Your task to perform on an android device: open app "Google Sheets" Image 0: 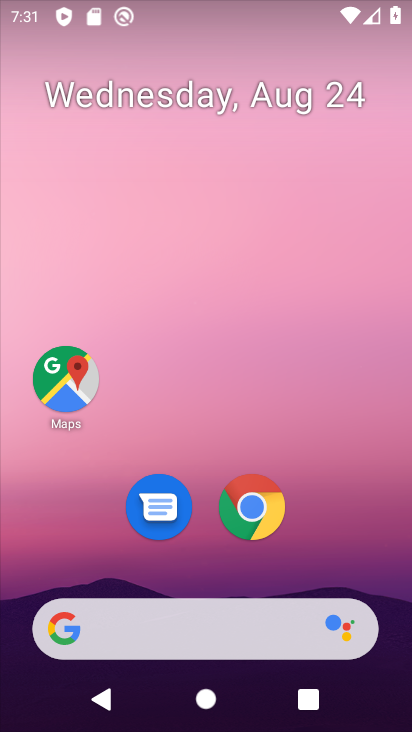
Step 0: drag from (363, 538) to (363, 59)
Your task to perform on an android device: open app "Google Sheets" Image 1: 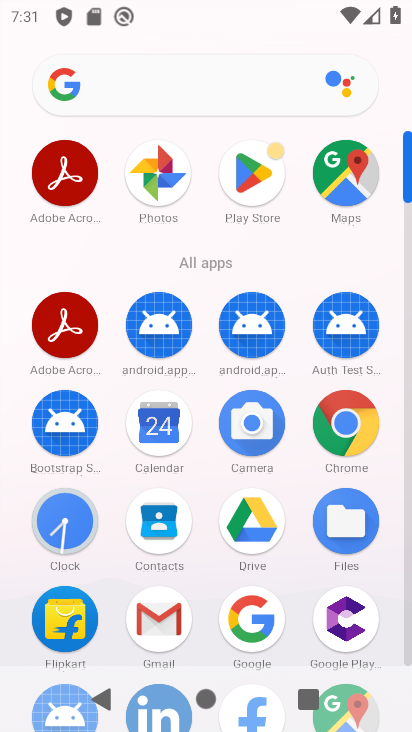
Step 1: click (260, 174)
Your task to perform on an android device: open app "Google Sheets" Image 2: 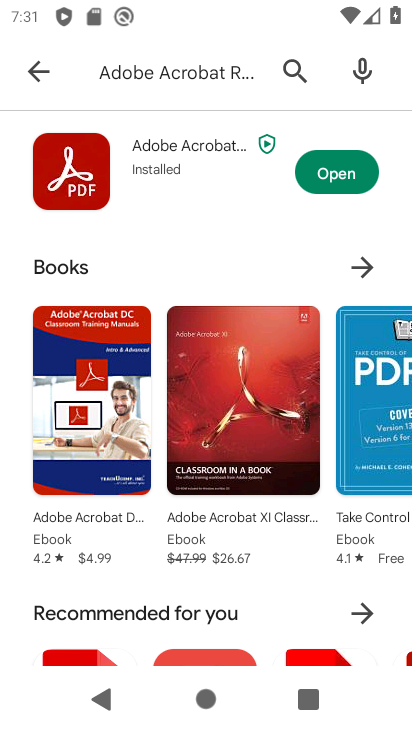
Step 2: press back button
Your task to perform on an android device: open app "Google Sheets" Image 3: 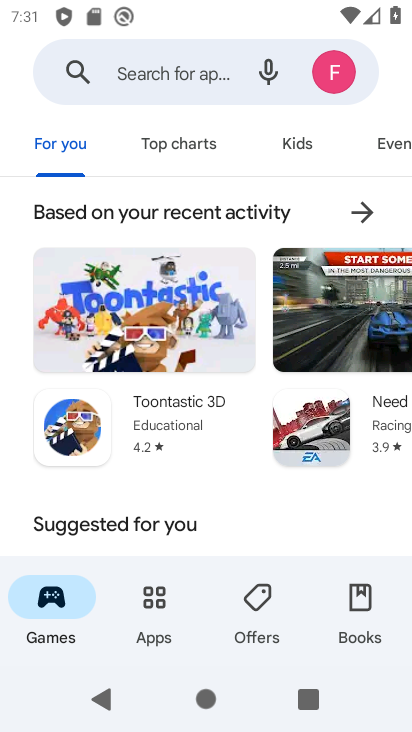
Step 3: click (189, 62)
Your task to perform on an android device: open app "Google Sheets" Image 4: 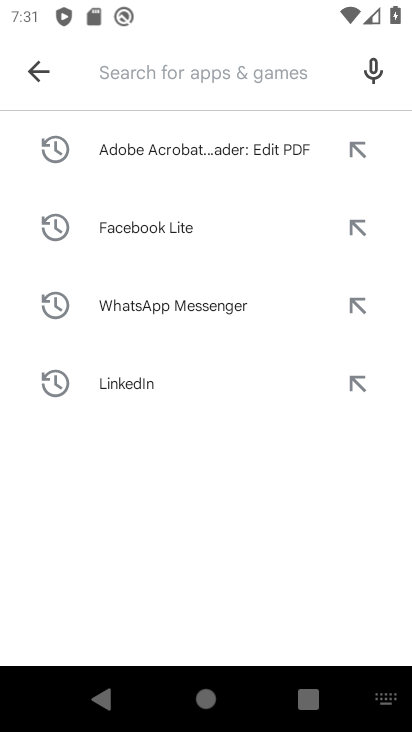
Step 4: type "Google Sheets"
Your task to perform on an android device: open app "Google Sheets" Image 5: 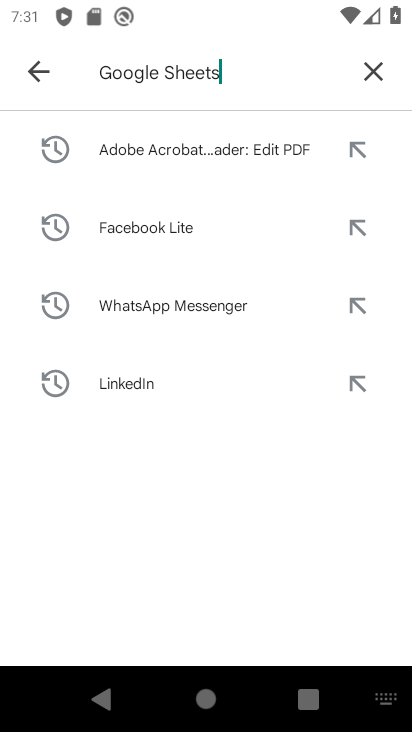
Step 5: press enter
Your task to perform on an android device: open app "Google Sheets" Image 6: 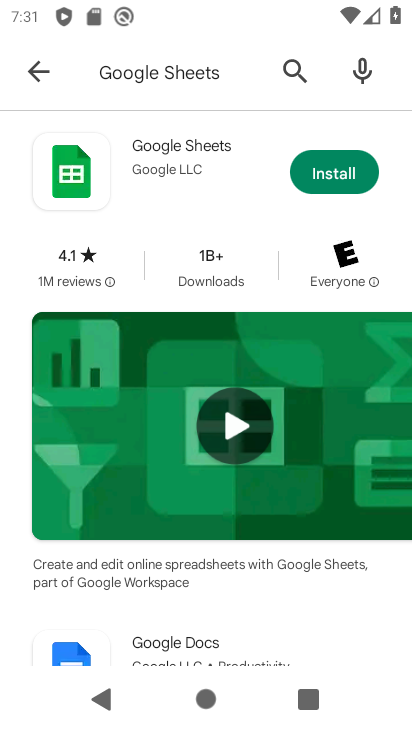
Step 6: task complete